Your task to perform on an android device: turn on javascript in the chrome app Image 0: 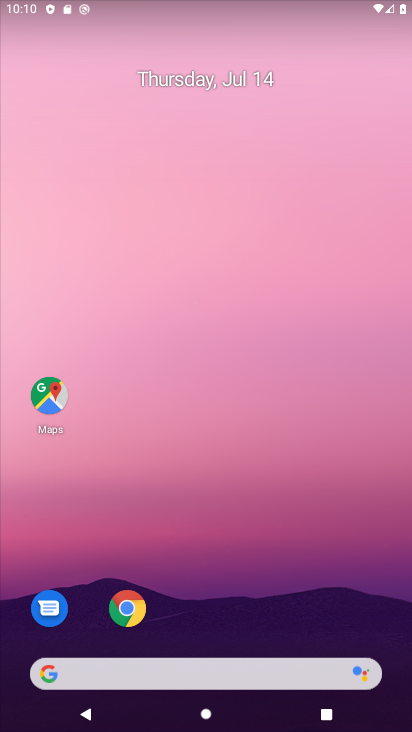
Step 0: click (125, 611)
Your task to perform on an android device: turn on javascript in the chrome app Image 1: 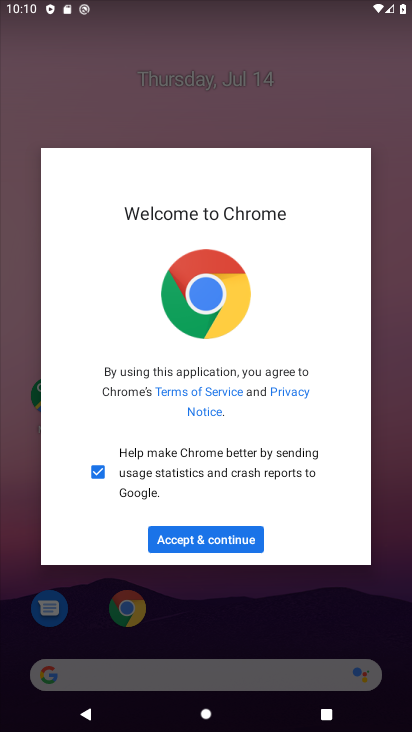
Step 1: click (197, 542)
Your task to perform on an android device: turn on javascript in the chrome app Image 2: 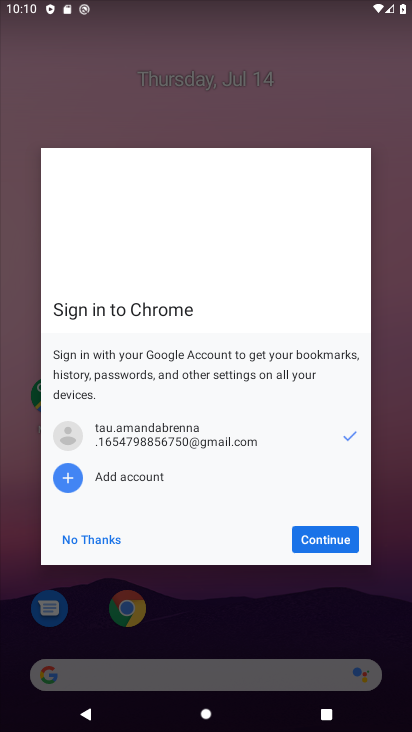
Step 2: click (318, 539)
Your task to perform on an android device: turn on javascript in the chrome app Image 3: 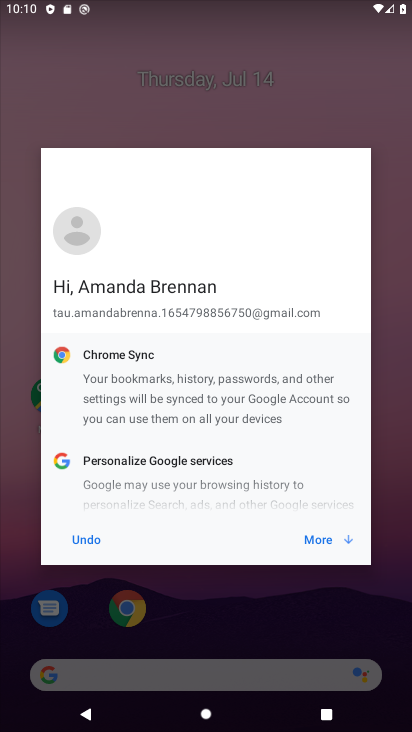
Step 3: click (318, 539)
Your task to perform on an android device: turn on javascript in the chrome app Image 4: 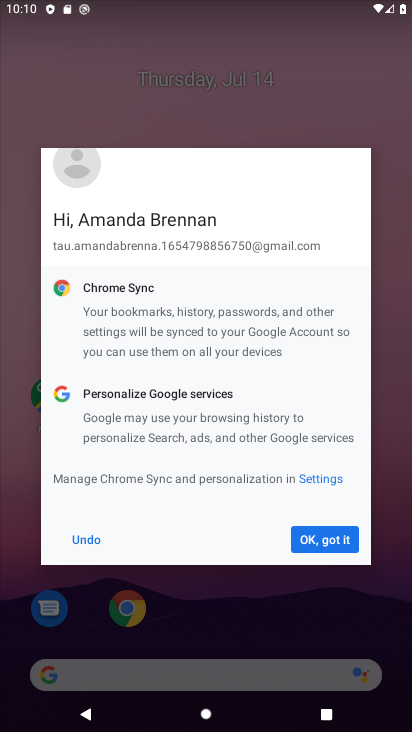
Step 4: click (318, 539)
Your task to perform on an android device: turn on javascript in the chrome app Image 5: 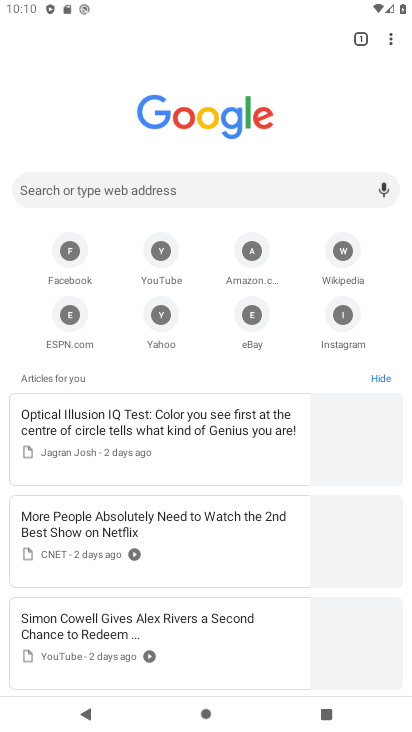
Step 5: click (391, 41)
Your task to perform on an android device: turn on javascript in the chrome app Image 6: 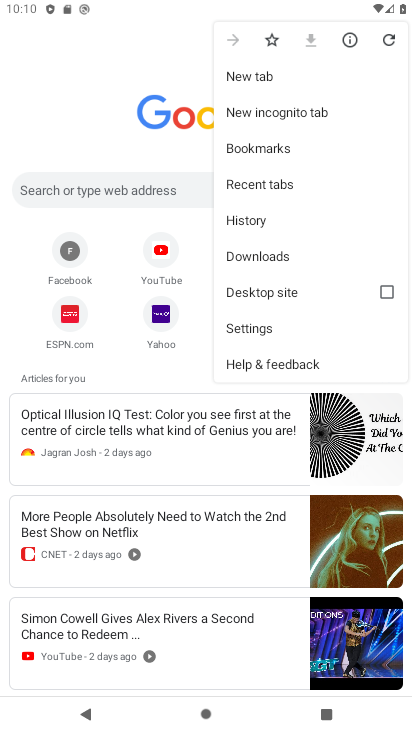
Step 6: click (248, 327)
Your task to perform on an android device: turn on javascript in the chrome app Image 7: 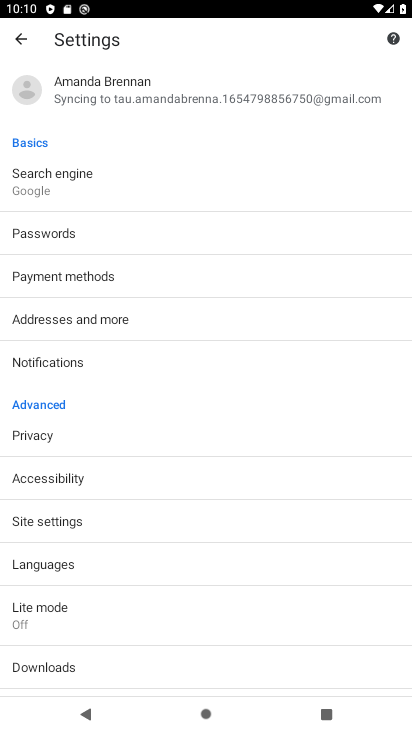
Step 7: click (63, 515)
Your task to perform on an android device: turn on javascript in the chrome app Image 8: 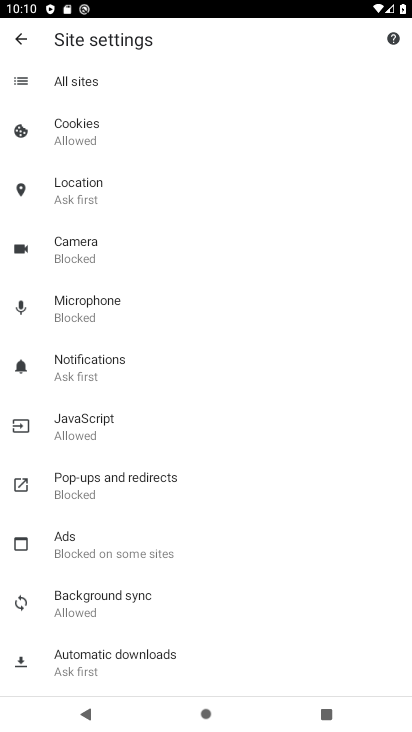
Step 8: click (72, 423)
Your task to perform on an android device: turn on javascript in the chrome app Image 9: 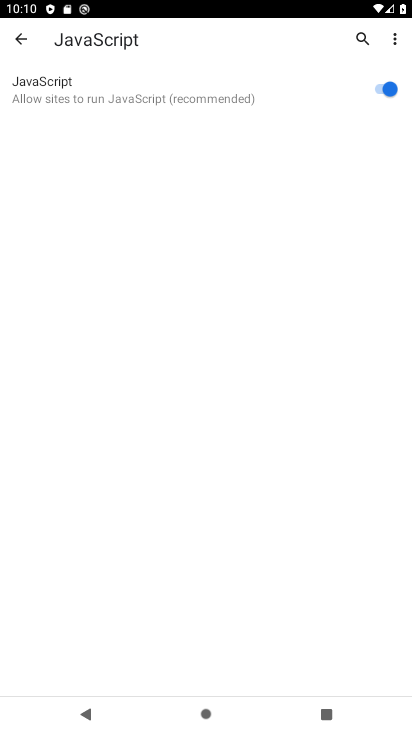
Step 9: task complete